Your task to perform on an android device: turn on showing notifications on the lock screen Image 0: 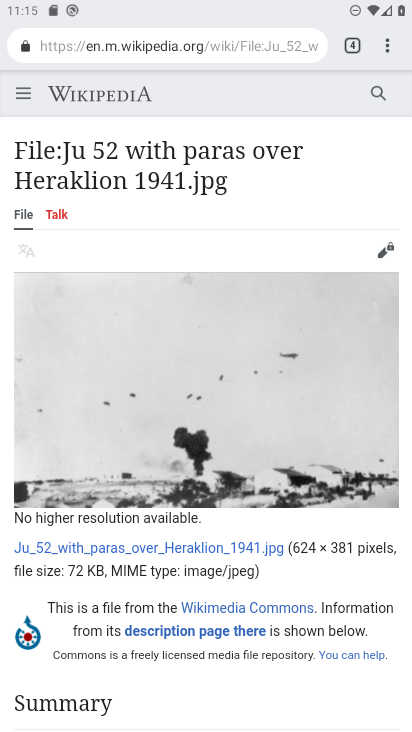
Step 0: drag from (385, 50) to (402, 114)
Your task to perform on an android device: turn on showing notifications on the lock screen Image 1: 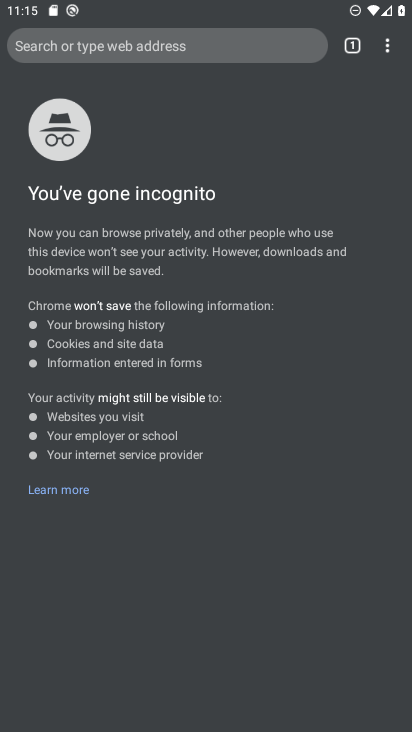
Step 1: press home button
Your task to perform on an android device: turn on showing notifications on the lock screen Image 2: 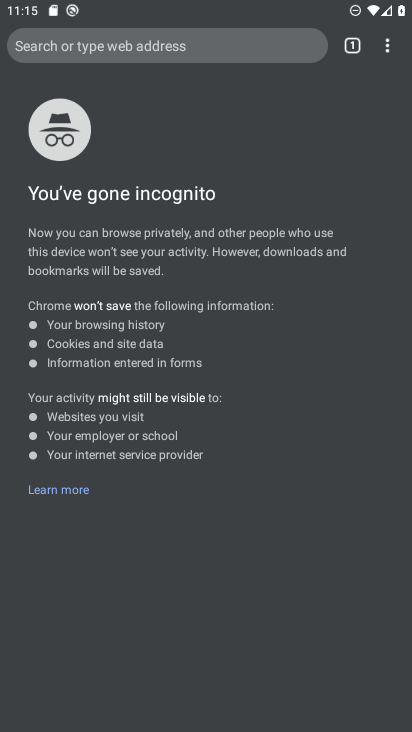
Step 2: press home button
Your task to perform on an android device: turn on showing notifications on the lock screen Image 3: 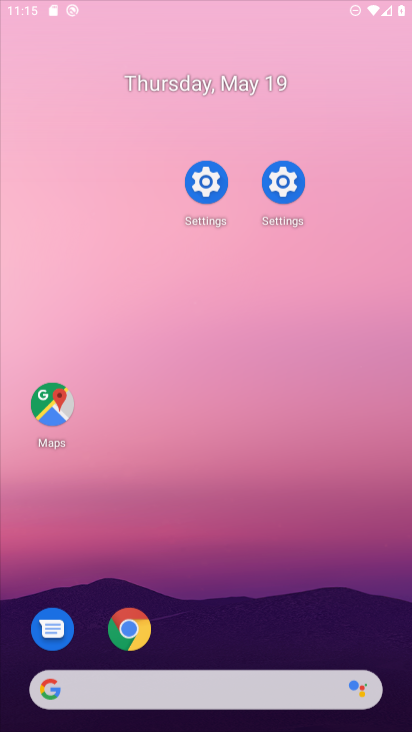
Step 3: press home button
Your task to perform on an android device: turn on showing notifications on the lock screen Image 4: 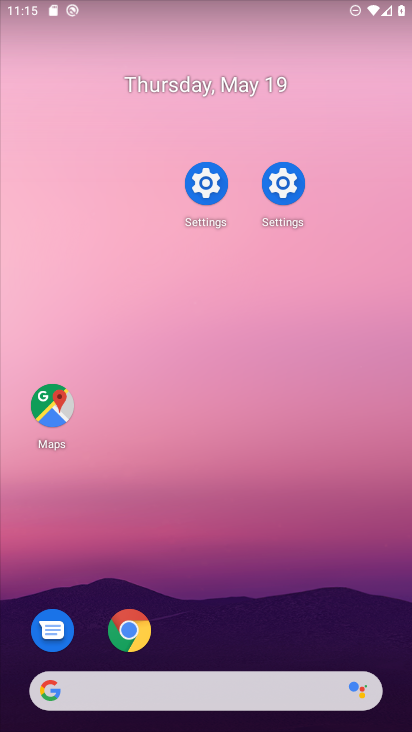
Step 4: drag from (234, 481) to (161, 24)
Your task to perform on an android device: turn on showing notifications on the lock screen Image 5: 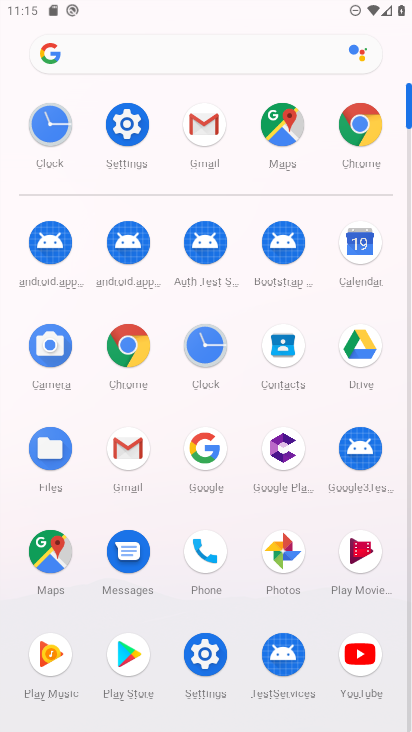
Step 5: click (115, 129)
Your task to perform on an android device: turn on showing notifications on the lock screen Image 6: 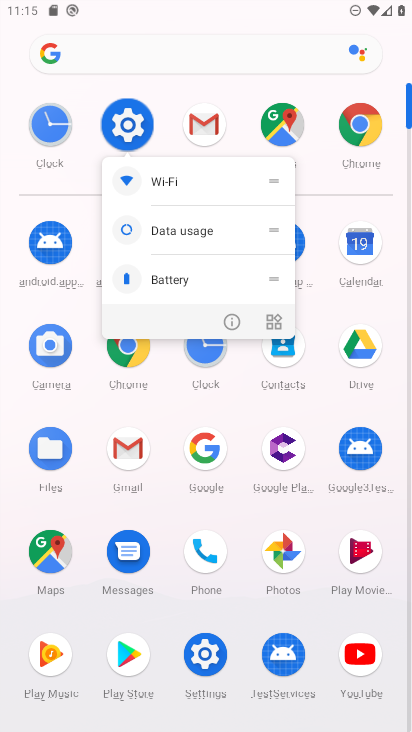
Step 6: click (118, 127)
Your task to perform on an android device: turn on showing notifications on the lock screen Image 7: 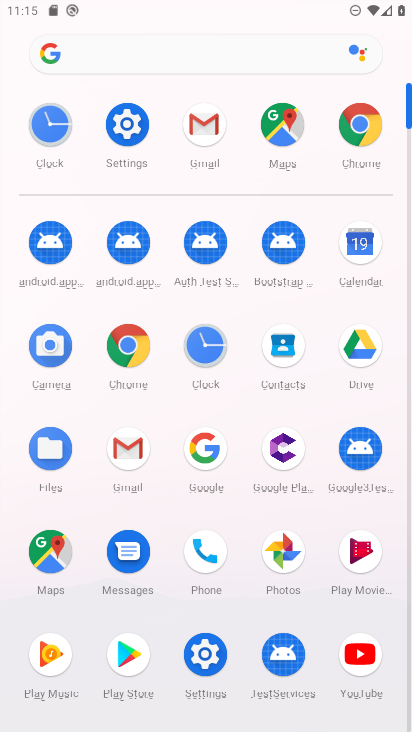
Step 7: click (120, 129)
Your task to perform on an android device: turn on showing notifications on the lock screen Image 8: 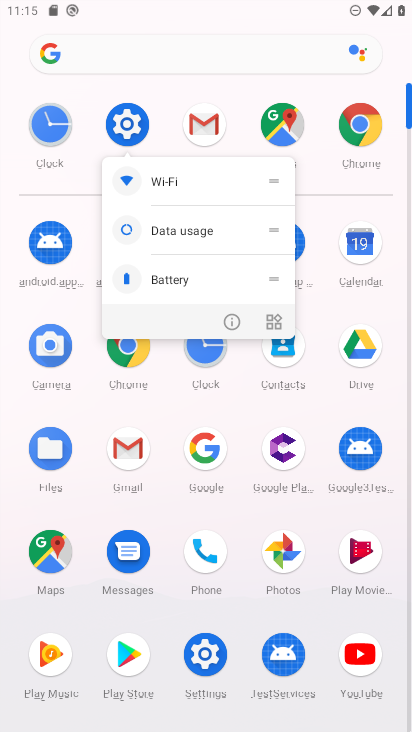
Step 8: click (136, 120)
Your task to perform on an android device: turn on showing notifications on the lock screen Image 9: 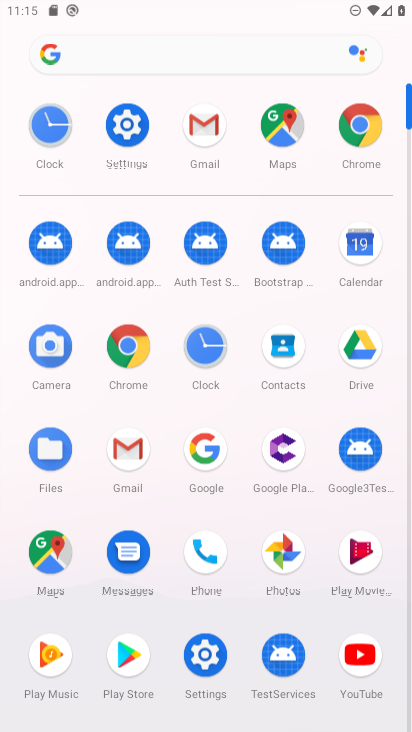
Step 9: click (134, 123)
Your task to perform on an android device: turn on showing notifications on the lock screen Image 10: 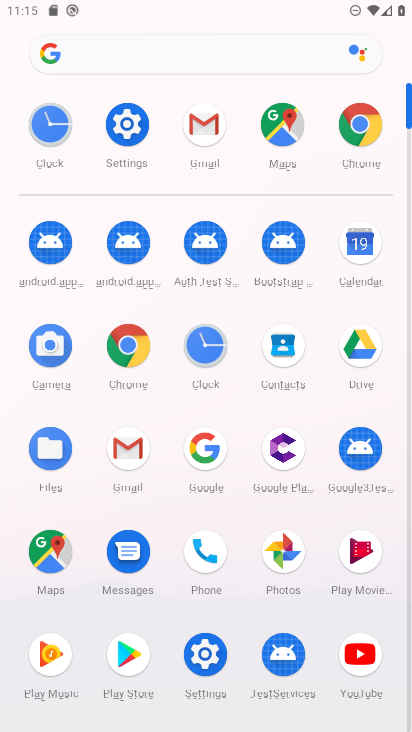
Step 10: click (134, 123)
Your task to perform on an android device: turn on showing notifications on the lock screen Image 11: 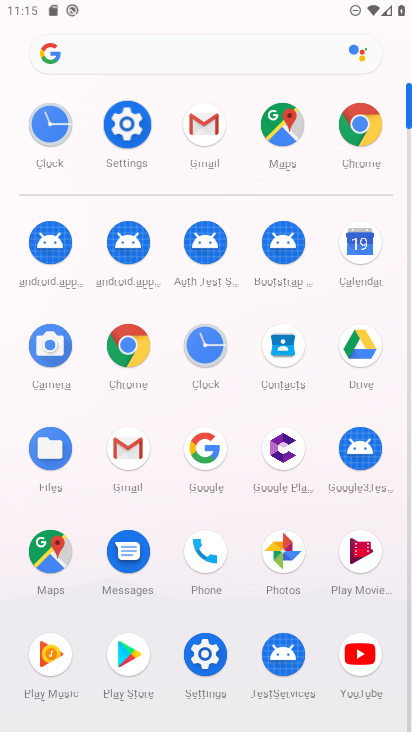
Step 11: click (134, 123)
Your task to perform on an android device: turn on showing notifications on the lock screen Image 12: 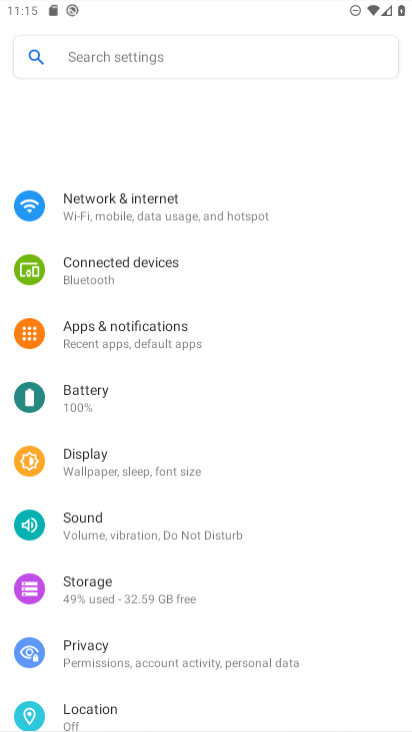
Step 12: click (134, 123)
Your task to perform on an android device: turn on showing notifications on the lock screen Image 13: 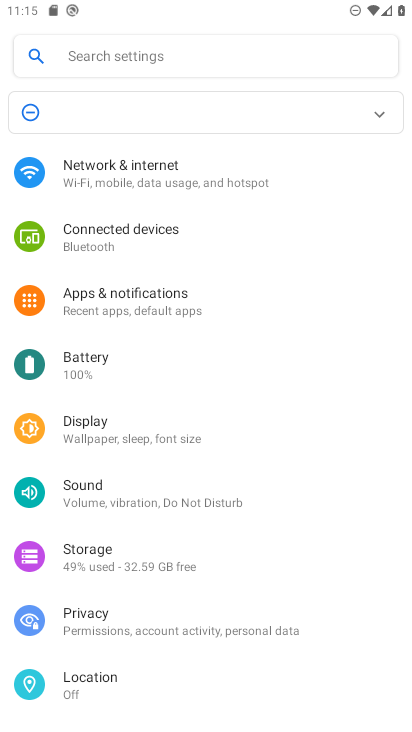
Step 13: click (132, 119)
Your task to perform on an android device: turn on showing notifications on the lock screen Image 14: 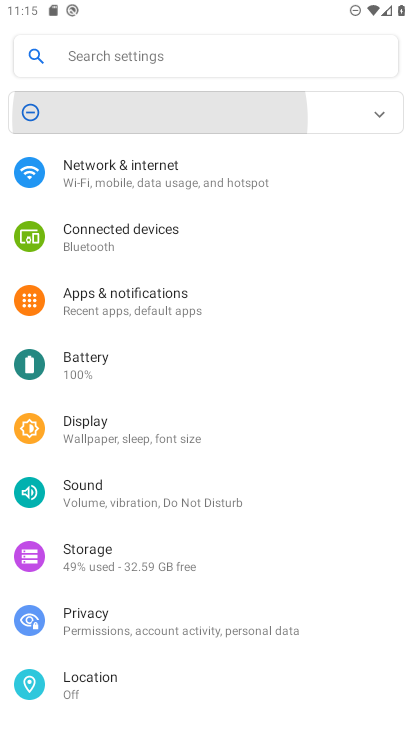
Step 14: click (133, 117)
Your task to perform on an android device: turn on showing notifications on the lock screen Image 15: 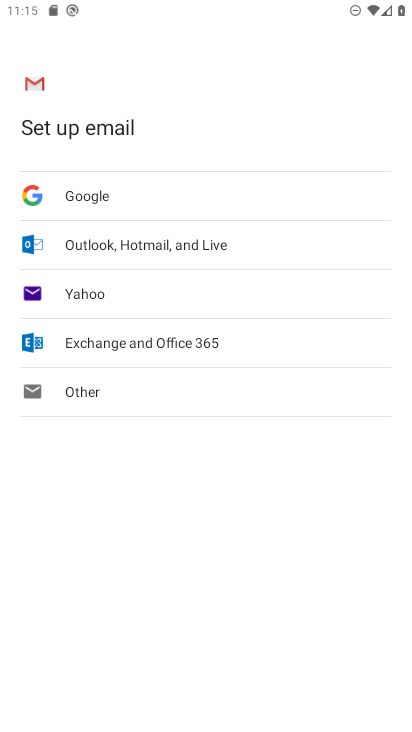
Step 15: press back button
Your task to perform on an android device: turn on showing notifications on the lock screen Image 16: 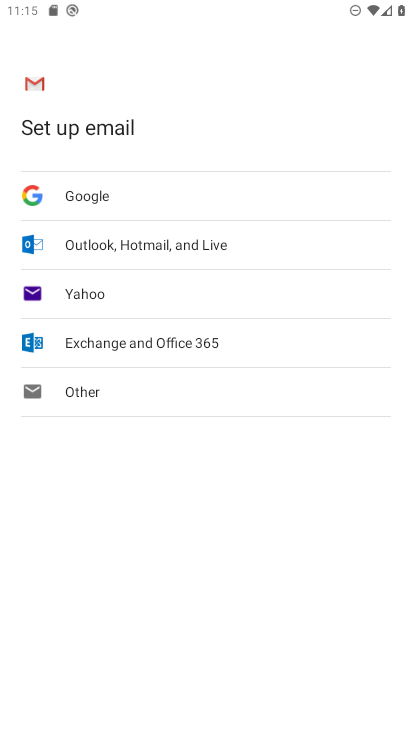
Step 16: press back button
Your task to perform on an android device: turn on showing notifications on the lock screen Image 17: 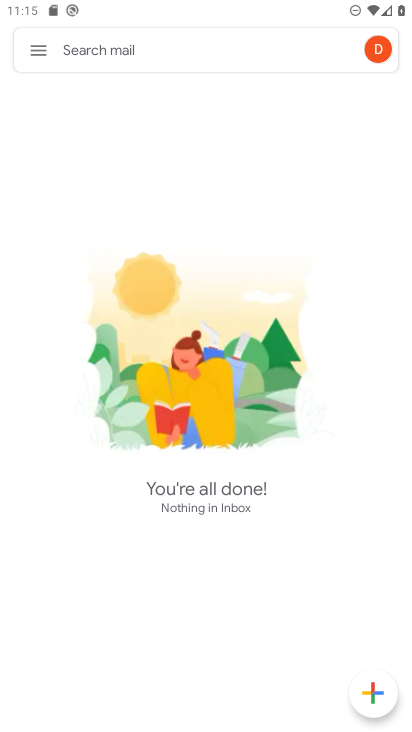
Step 17: press home button
Your task to perform on an android device: turn on showing notifications on the lock screen Image 18: 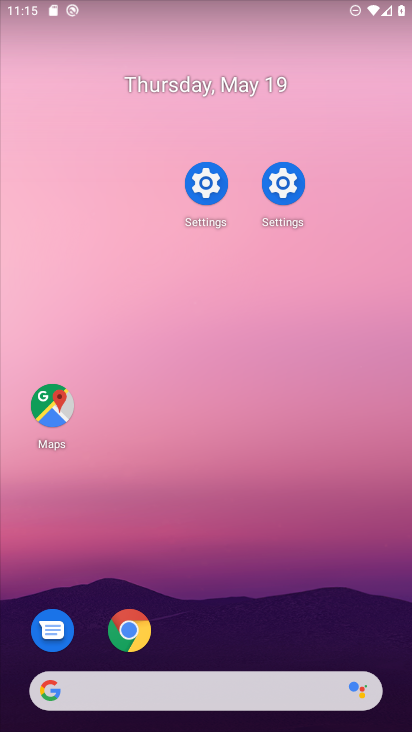
Step 18: drag from (282, 649) to (182, 84)
Your task to perform on an android device: turn on showing notifications on the lock screen Image 19: 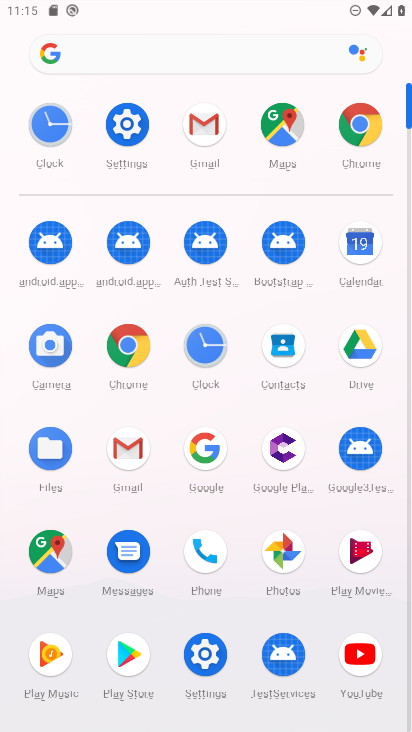
Step 19: click (127, 126)
Your task to perform on an android device: turn on showing notifications on the lock screen Image 20: 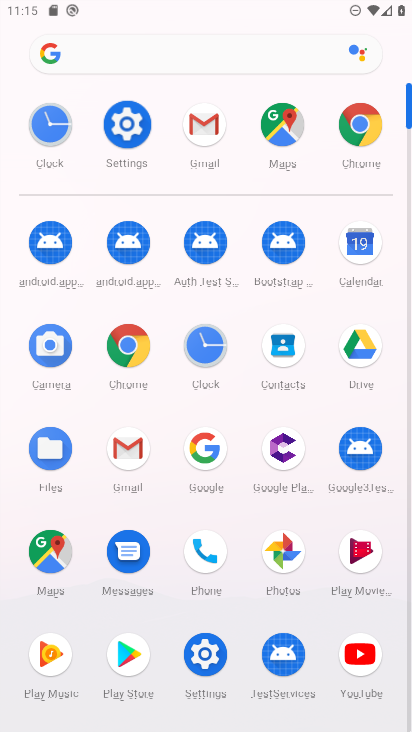
Step 20: click (127, 126)
Your task to perform on an android device: turn on showing notifications on the lock screen Image 21: 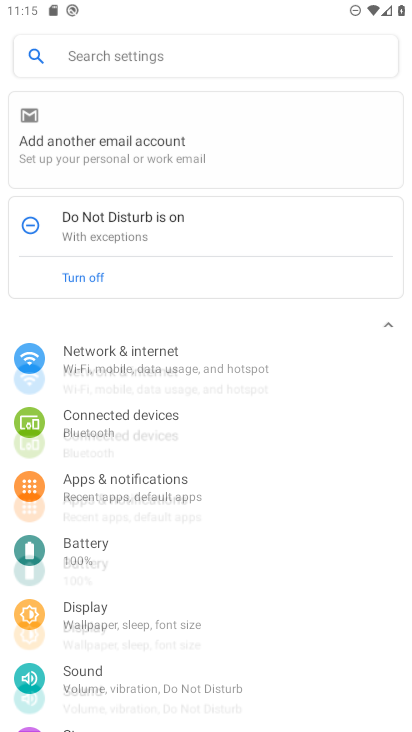
Step 21: click (127, 126)
Your task to perform on an android device: turn on showing notifications on the lock screen Image 22: 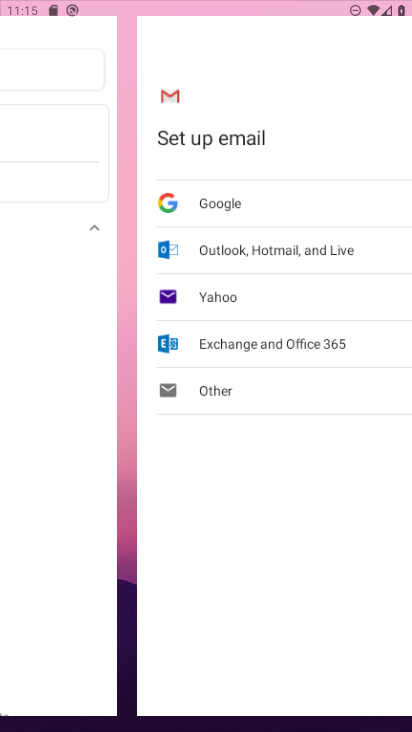
Step 22: click (126, 127)
Your task to perform on an android device: turn on showing notifications on the lock screen Image 23: 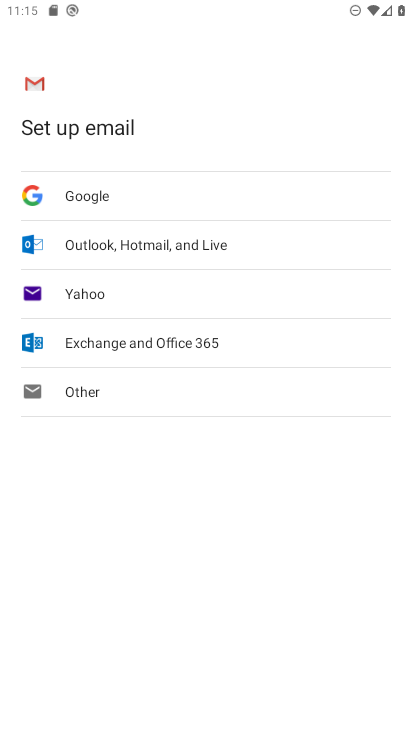
Step 23: press home button
Your task to perform on an android device: turn on showing notifications on the lock screen Image 24: 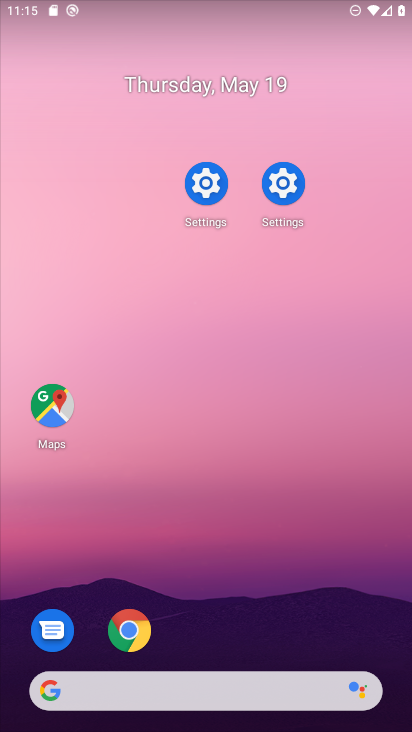
Step 24: drag from (277, 629) to (112, 127)
Your task to perform on an android device: turn on showing notifications on the lock screen Image 25: 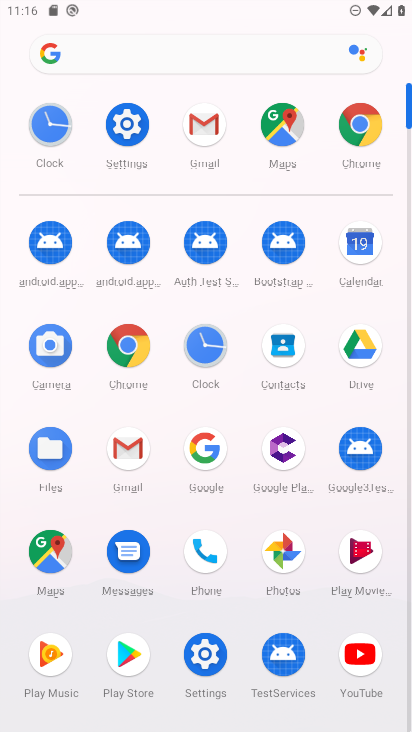
Step 25: click (117, 128)
Your task to perform on an android device: turn on showing notifications on the lock screen Image 26: 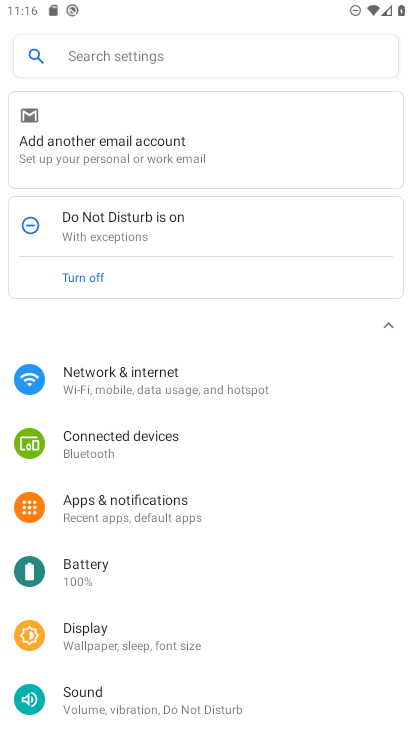
Step 26: click (114, 505)
Your task to perform on an android device: turn on showing notifications on the lock screen Image 27: 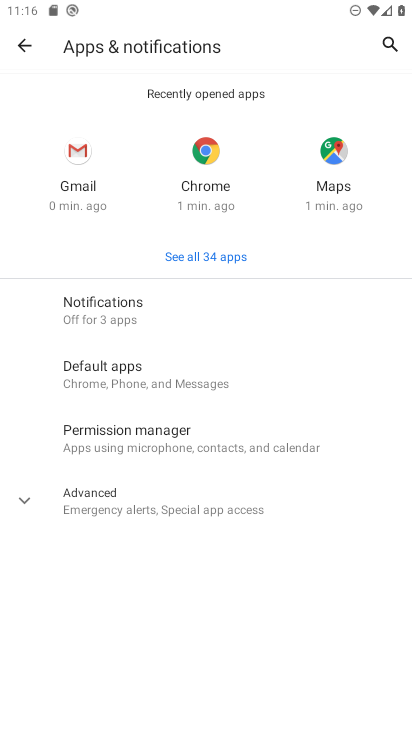
Step 27: click (95, 318)
Your task to perform on an android device: turn on showing notifications on the lock screen Image 28: 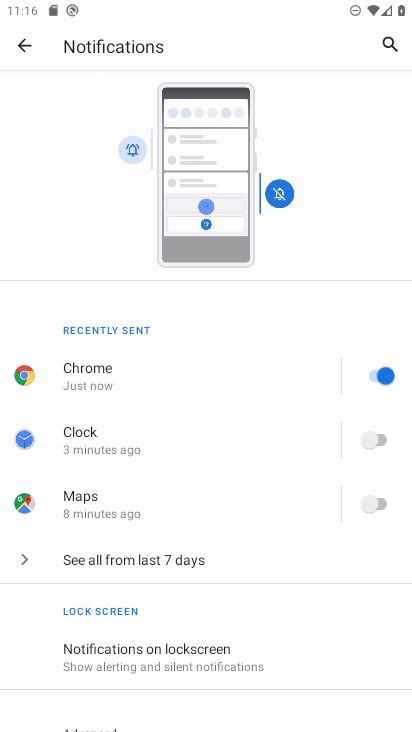
Step 28: click (133, 654)
Your task to perform on an android device: turn on showing notifications on the lock screen Image 29: 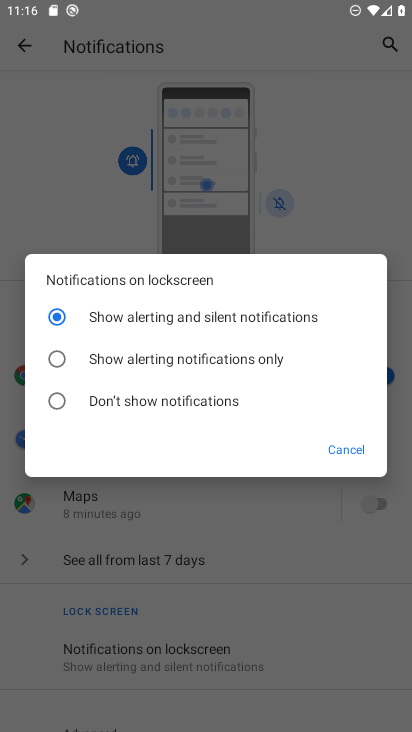
Step 29: click (49, 310)
Your task to perform on an android device: turn on showing notifications on the lock screen Image 30: 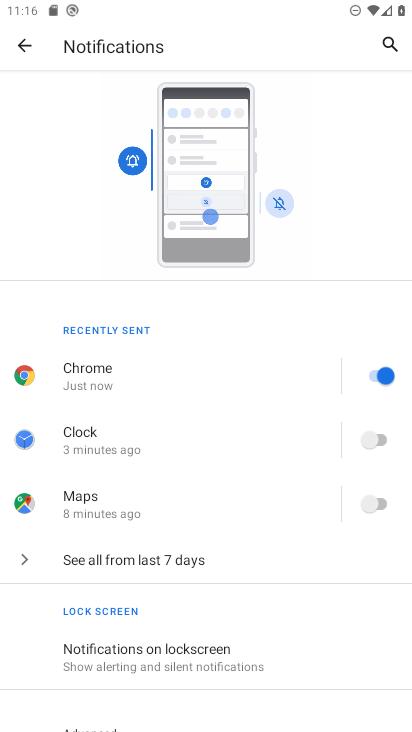
Step 30: task complete